Your task to perform on an android device: Open internet settings Image 0: 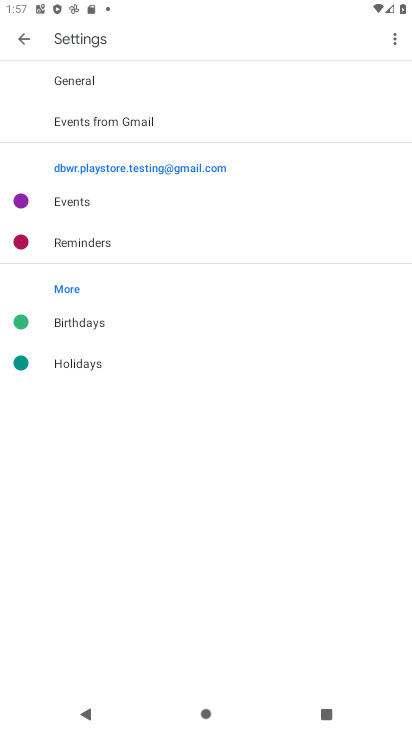
Step 0: press home button
Your task to perform on an android device: Open internet settings Image 1: 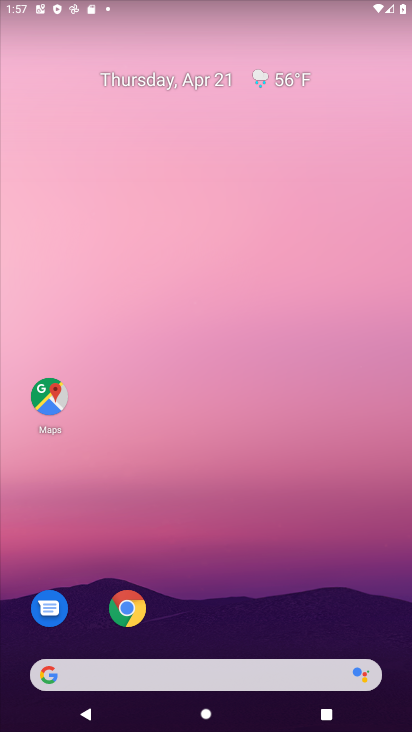
Step 1: drag from (208, 530) to (203, 80)
Your task to perform on an android device: Open internet settings Image 2: 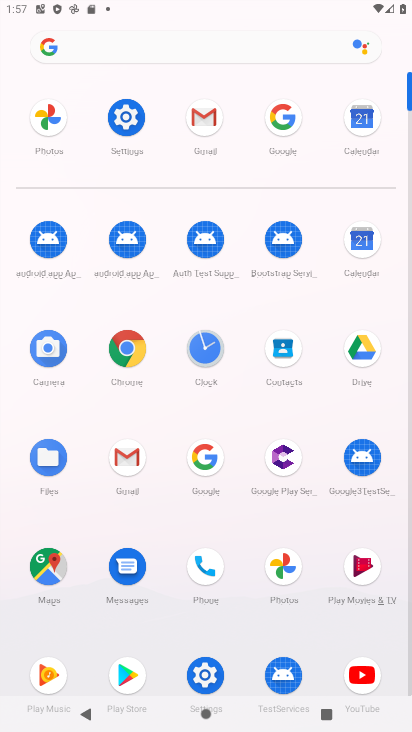
Step 2: click (133, 102)
Your task to perform on an android device: Open internet settings Image 3: 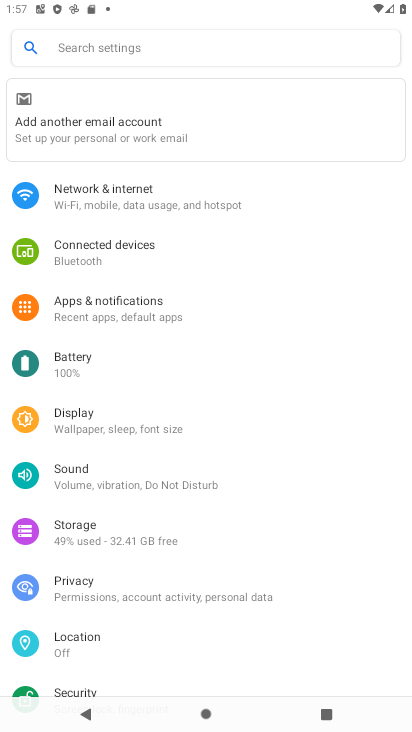
Step 3: click (129, 204)
Your task to perform on an android device: Open internet settings Image 4: 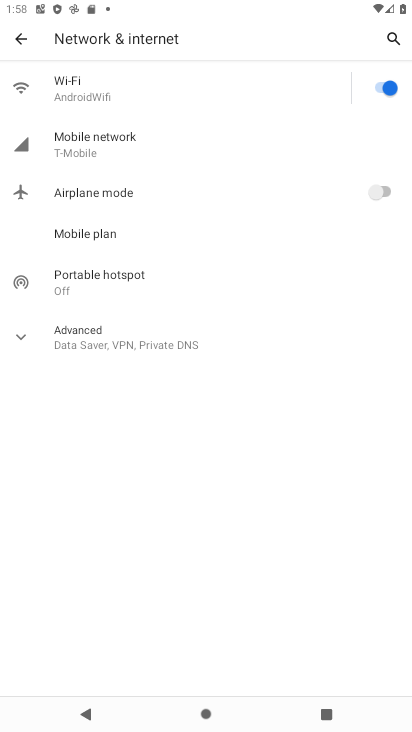
Step 4: task complete